Your task to perform on an android device: Open Reddit.com Image 0: 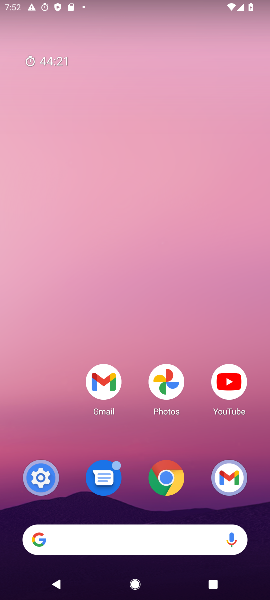
Step 0: drag from (130, 512) to (121, 226)
Your task to perform on an android device: Open Reddit.com Image 1: 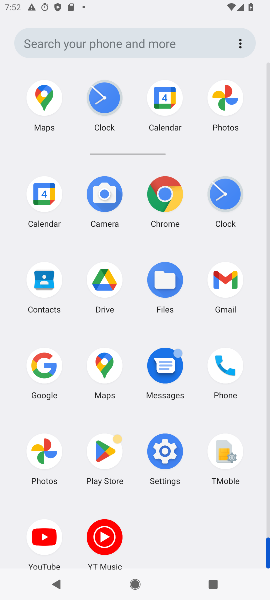
Step 1: click (166, 184)
Your task to perform on an android device: Open Reddit.com Image 2: 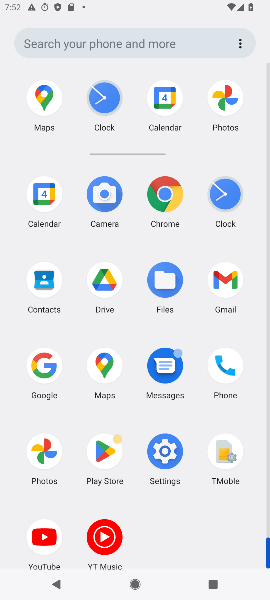
Step 2: click (166, 184)
Your task to perform on an android device: Open Reddit.com Image 3: 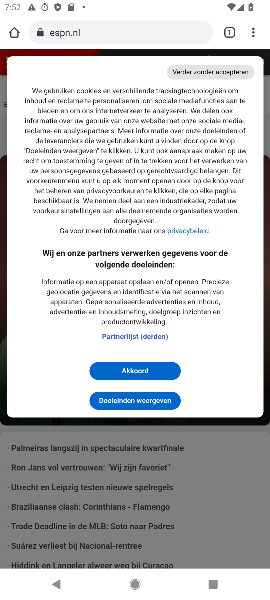
Step 3: drag from (151, 478) to (154, 217)
Your task to perform on an android device: Open Reddit.com Image 4: 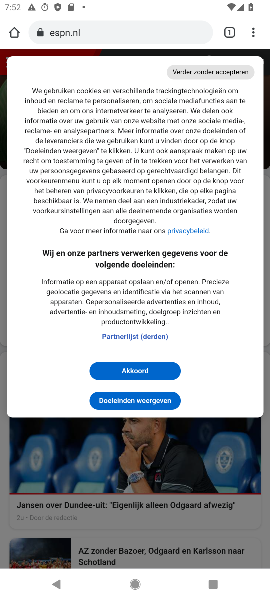
Step 4: drag from (150, 490) to (168, 225)
Your task to perform on an android device: Open Reddit.com Image 5: 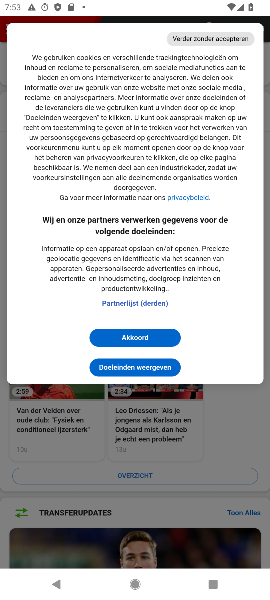
Step 5: click (240, 441)
Your task to perform on an android device: Open Reddit.com Image 6: 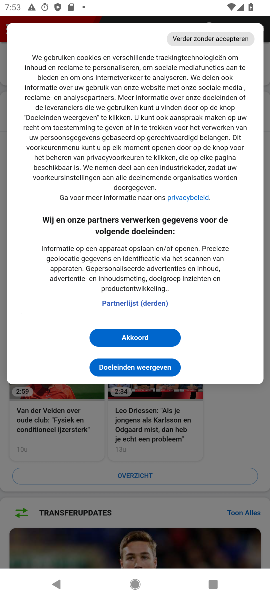
Step 6: drag from (145, 465) to (163, 246)
Your task to perform on an android device: Open Reddit.com Image 7: 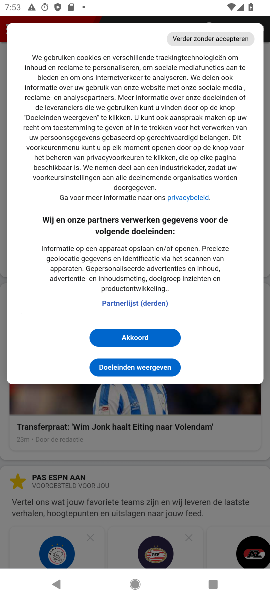
Step 7: drag from (197, 410) to (222, 594)
Your task to perform on an android device: Open Reddit.com Image 8: 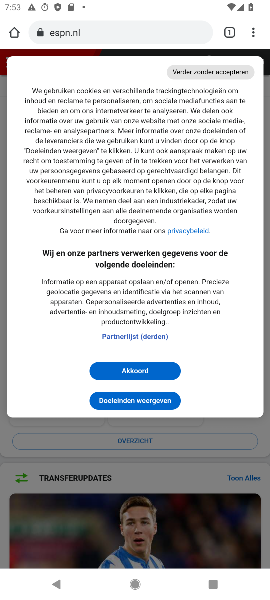
Step 8: click (74, 33)
Your task to perform on an android device: Open Reddit.com Image 9: 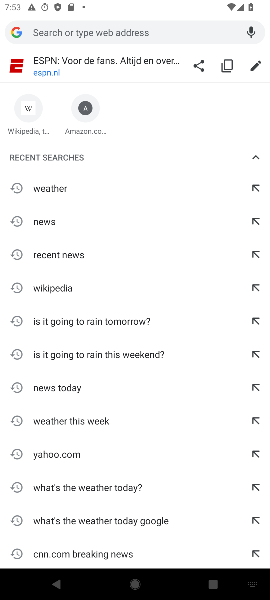
Step 9: click (96, 33)
Your task to perform on an android device: Open Reddit.com Image 10: 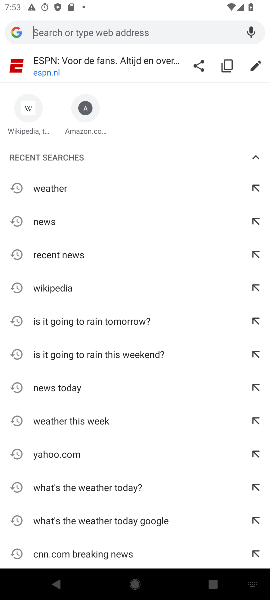
Step 10: type "Reddit.com"
Your task to perform on an android device: Open Reddit.com Image 11: 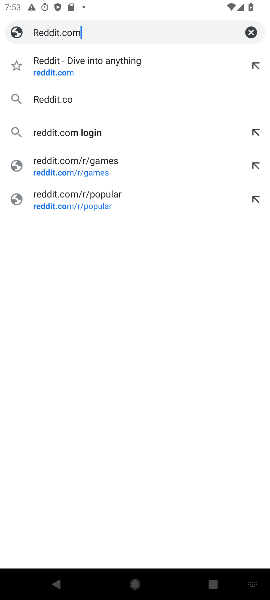
Step 11: type ""
Your task to perform on an android device: Open Reddit.com Image 12: 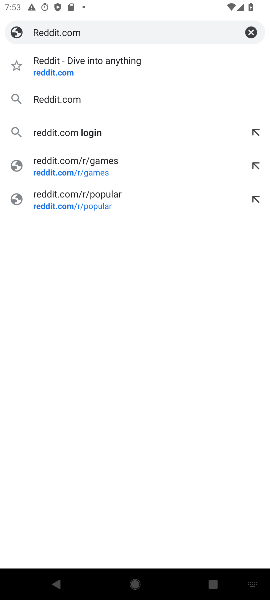
Step 12: click (60, 72)
Your task to perform on an android device: Open Reddit.com Image 13: 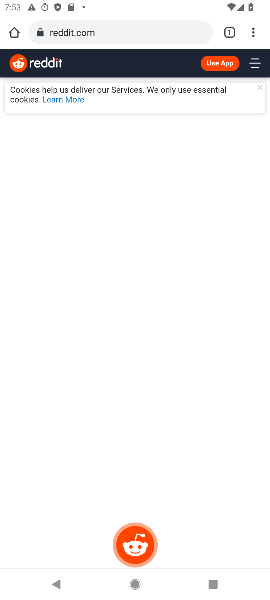
Step 13: task complete